Your task to perform on an android device: Go to notification settings Image 0: 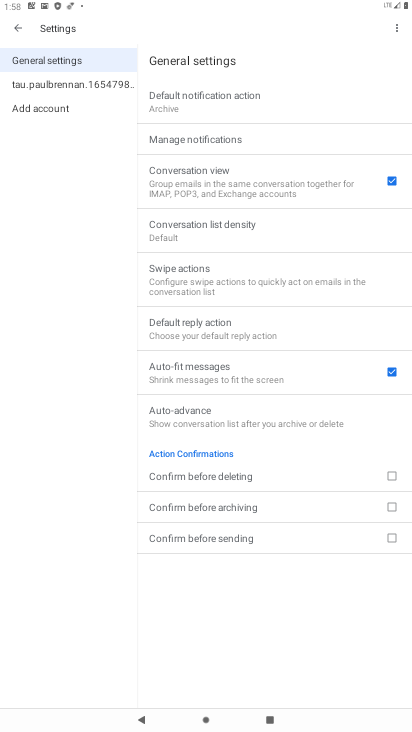
Step 0: press home button
Your task to perform on an android device: Go to notification settings Image 1: 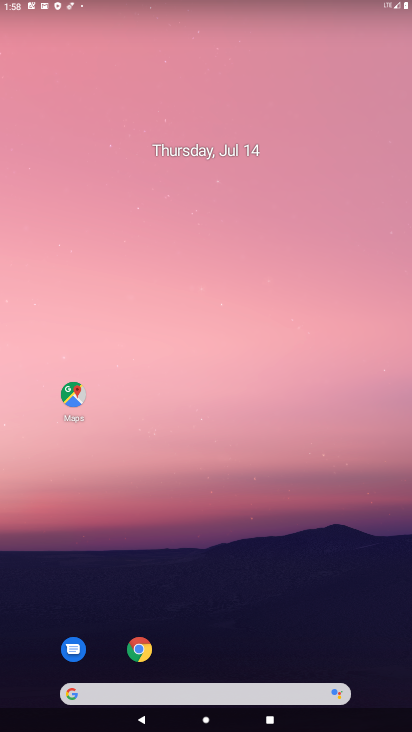
Step 1: drag from (391, 670) to (152, 28)
Your task to perform on an android device: Go to notification settings Image 2: 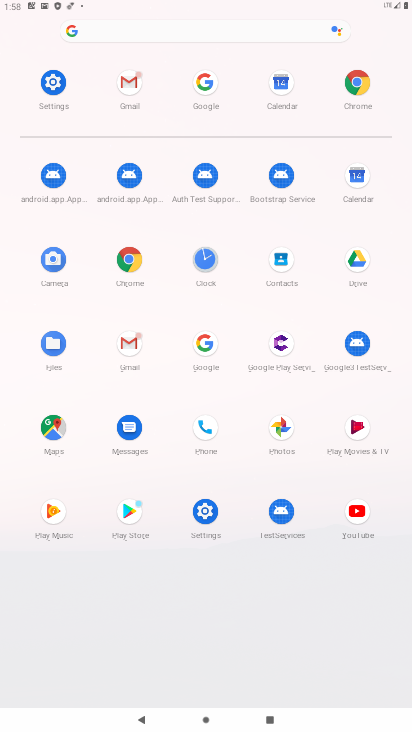
Step 2: click (202, 502)
Your task to perform on an android device: Go to notification settings Image 3: 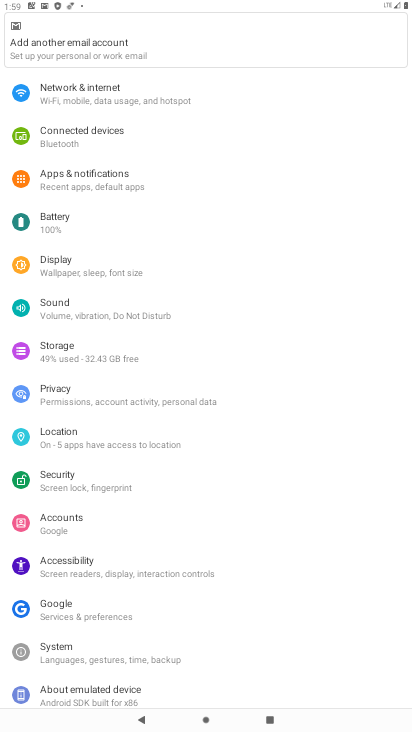
Step 3: click (68, 186)
Your task to perform on an android device: Go to notification settings Image 4: 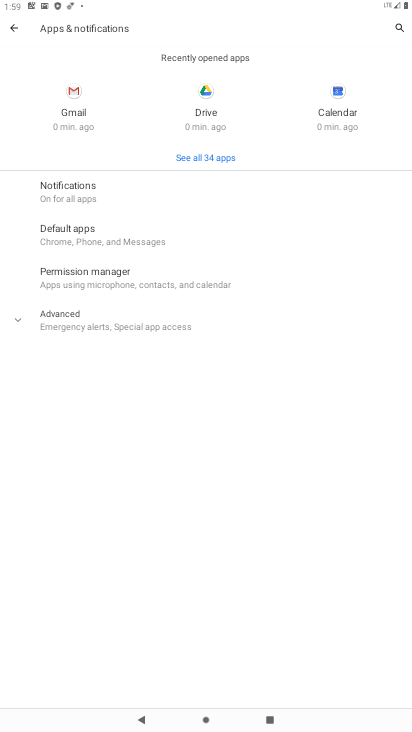
Step 4: click (87, 190)
Your task to perform on an android device: Go to notification settings Image 5: 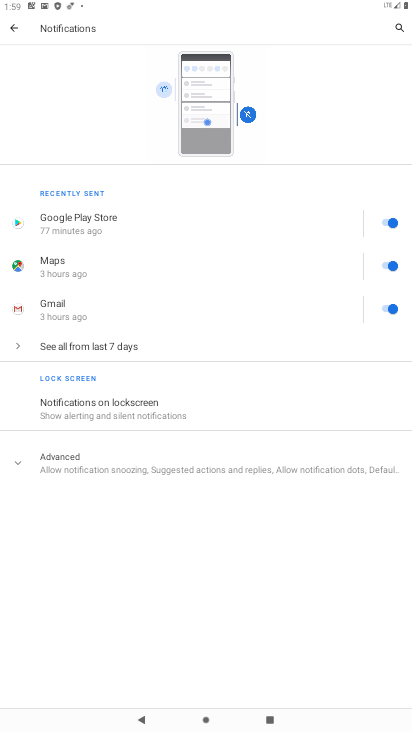
Step 5: task complete